Your task to perform on an android device: Open Amazon Image 0: 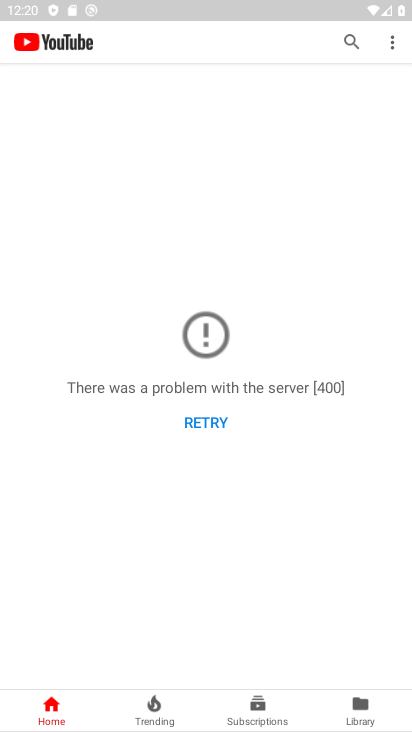
Step 0: press home button
Your task to perform on an android device: Open Amazon Image 1: 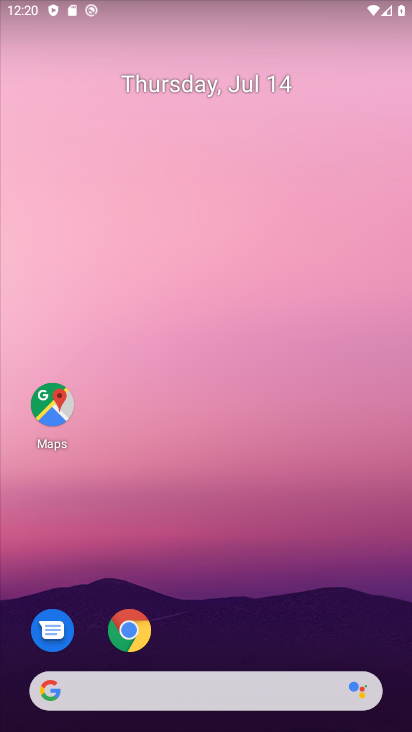
Step 1: click (129, 643)
Your task to perform on an android device: Open Amazon Image 2: 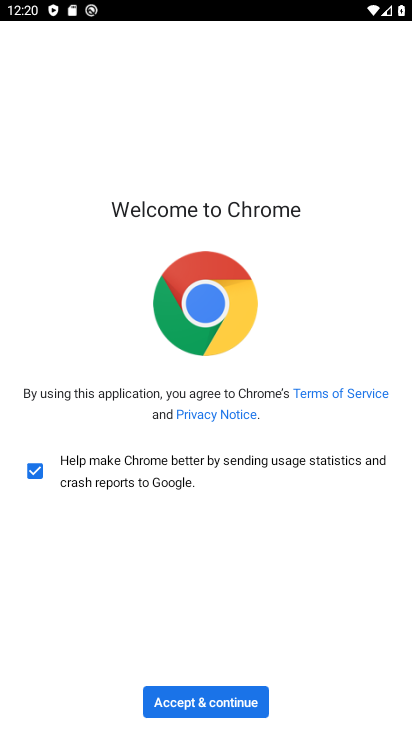
Step 2: click (201, 703)
Your task to perform on an android device: Open Amazon Image 3: 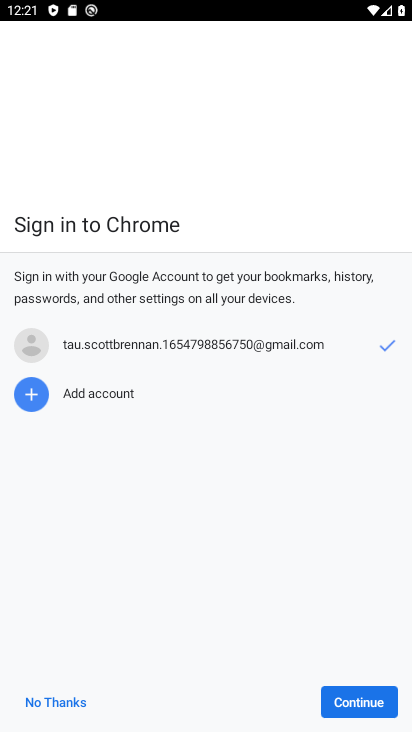
Step 3: click (376, 699)
Your task to perform on an android device: Open Amazon Image 4: 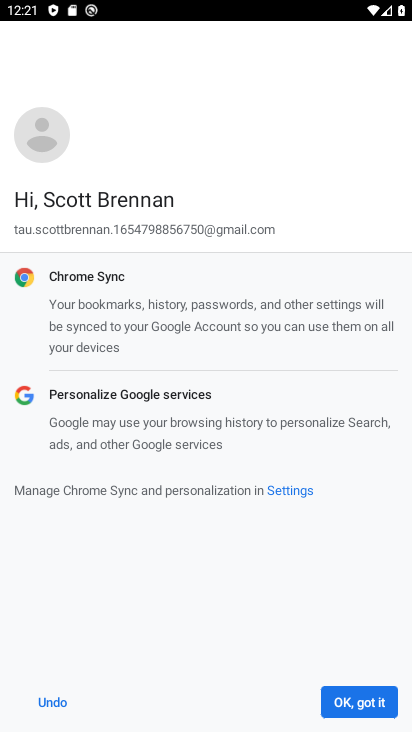
Step 4: click (379, 701)
Your task to perform on an android device: Open Amazon Image 5: 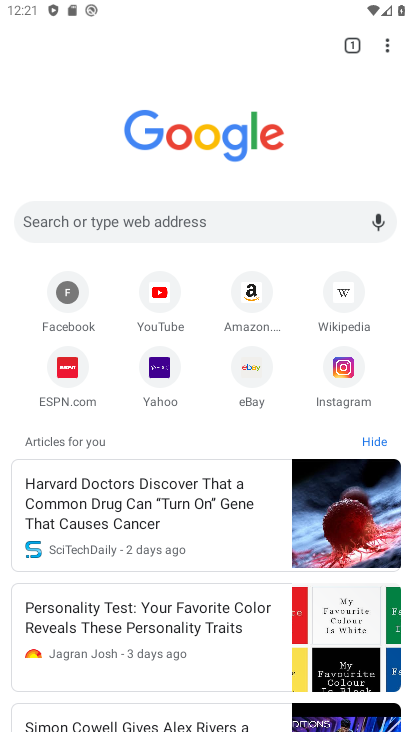
Step 5: click (250, 296)
Your task to perform on an android device: Open Amazon Image 6: 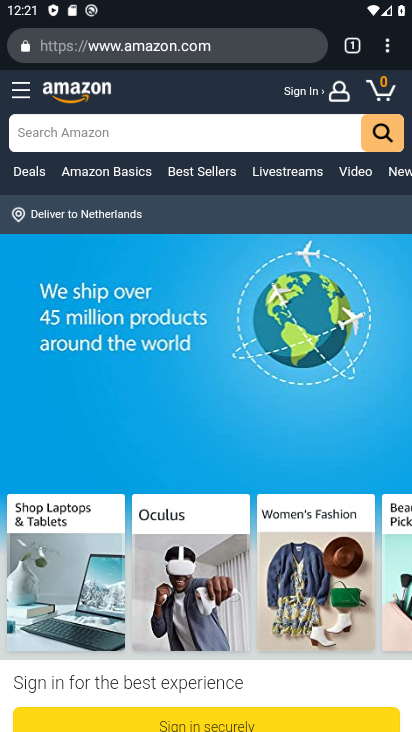
Step 6: task complete